Your task to perform on an android device: Open location settings Image 0: 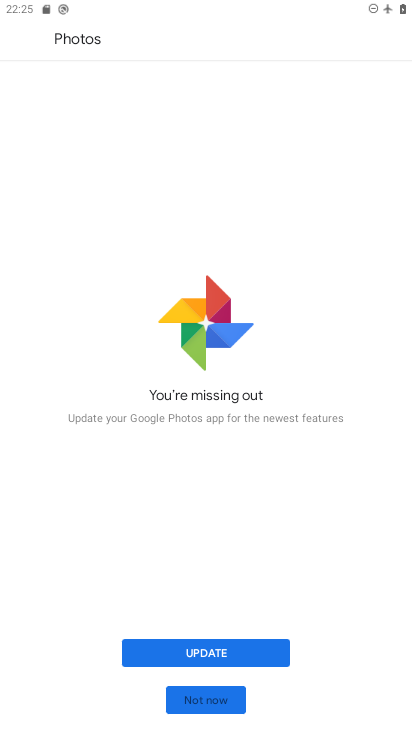
Step 0: press home button
Your task to perform on an android device: Open location settings Image 1: 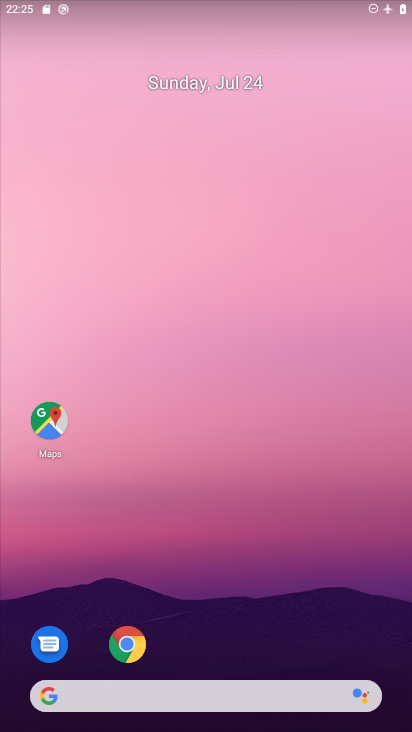
Step 1: drag from (381, 645) to (329, 79)
Your task to perform on an android device: Open location settings Image 2: 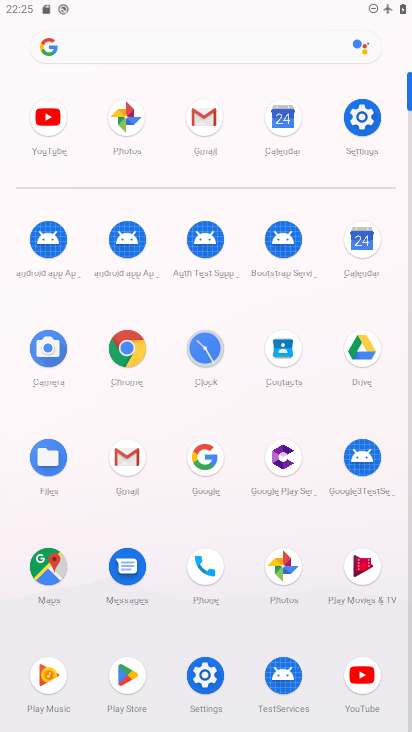
Step 2: click (205, 673)
Your task to perform on an android device: Open location settings Image 3: 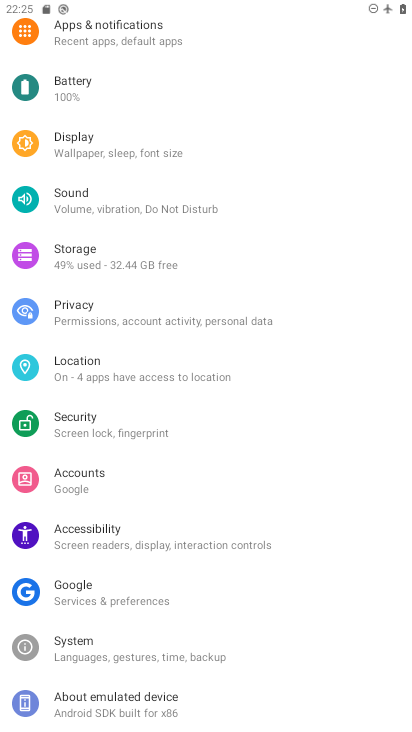
Step 3: click (68, 360)
Your task to perform on an android device: Open location settings Image 4: 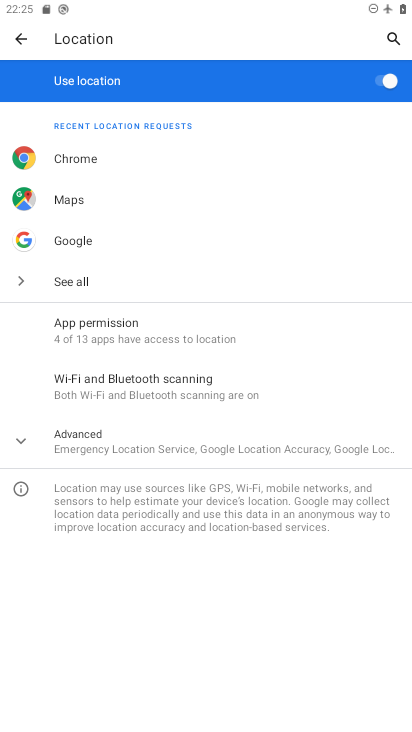
Step 4: click (18, 439)
Your task to perform on an android device: Open location settings Image 5: 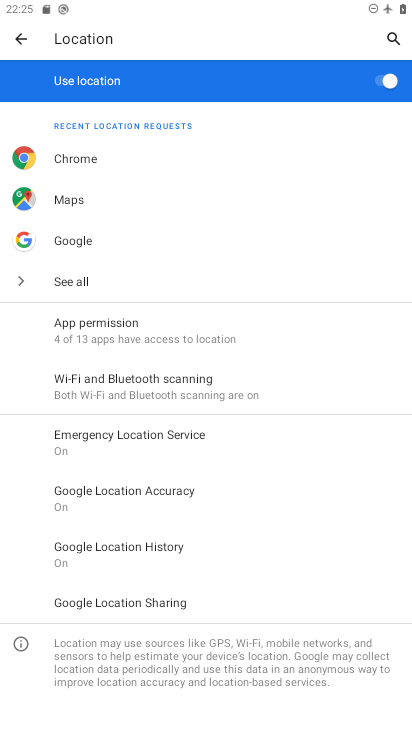
Step 5: task complete